Your task to perform on an android device: show emergency info Image 0: 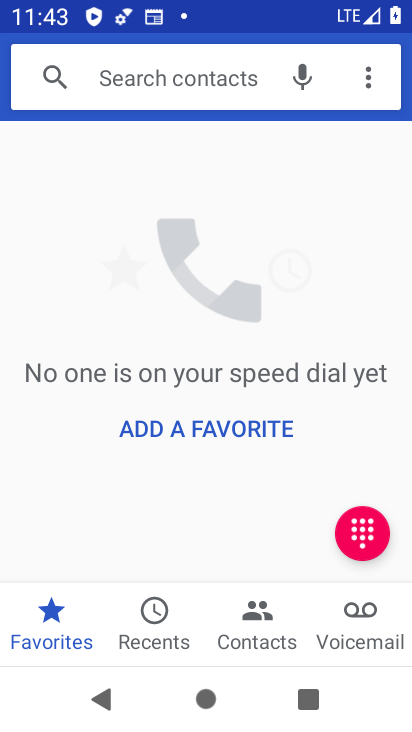
Step 0: press home button
Your task to perform on an android device: show emergency info Image 1: 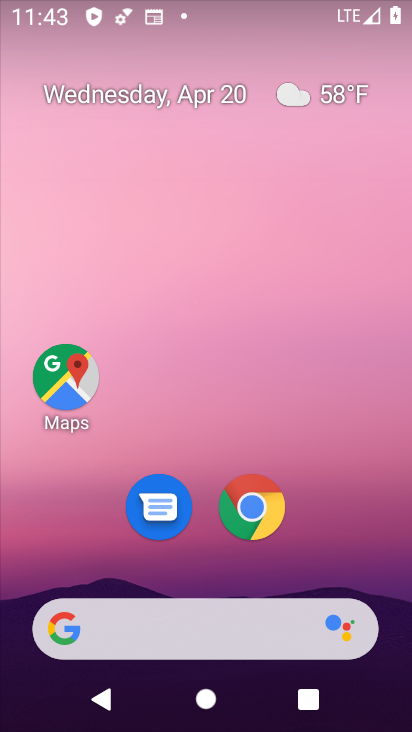
Step 1: drag from (358, 537) to (357, 99)
Your task to perform on an android device: show emergency info Image 2: 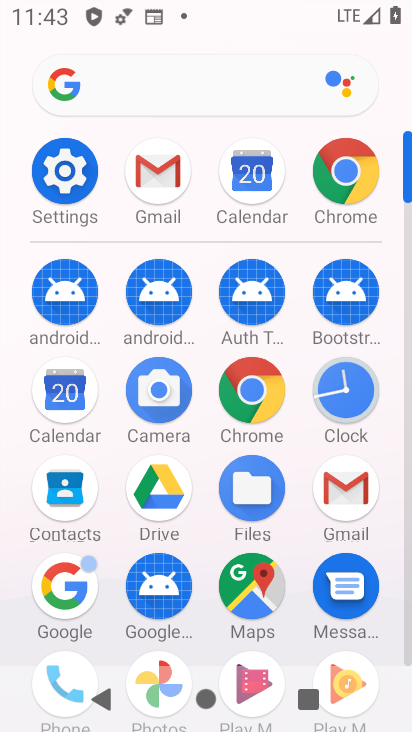
Step 2: click (75, 179)
Your task to perform on an android device: show emergency info Image 3: 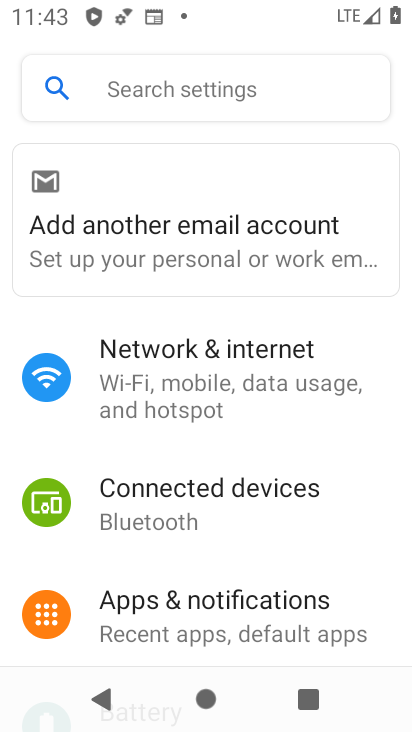
Step 3: drag from (350, 563) to (354, 341)
Your task to perform on an android device: show emergency info Image 4: 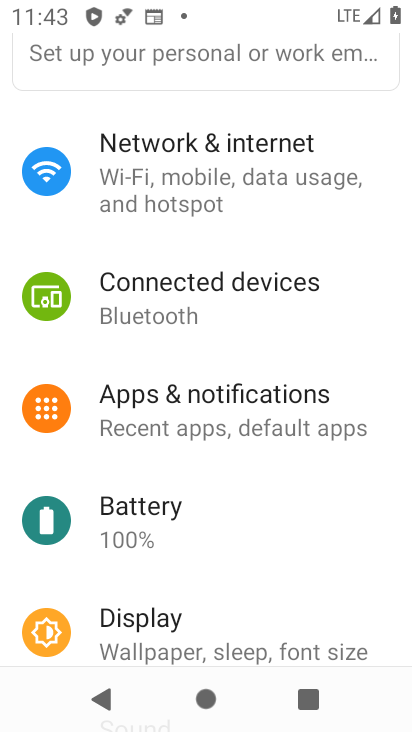
Step 4: drag from (361, 558) to (361, 331)
Your task to perform on an android device: show emergency info Image 5: 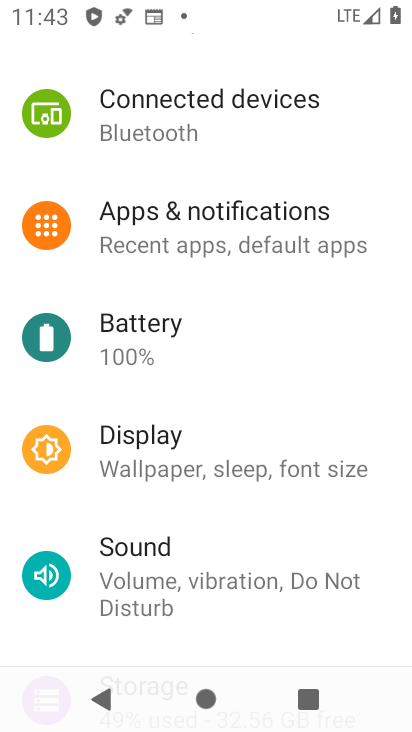
Step 5: drag from (375, 614) to (361, 371)
Your task to perform on an android device: show emergency info Image 6: 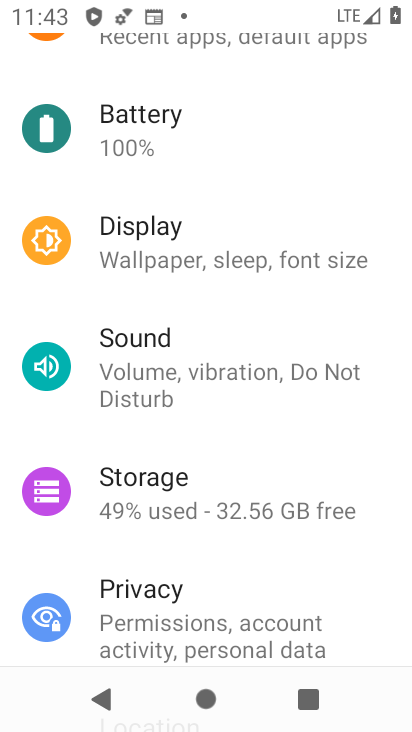
Step 6: drag from (371, 601) to (379, 394)
Your task to perform on an android device: show emergency info Image 7: 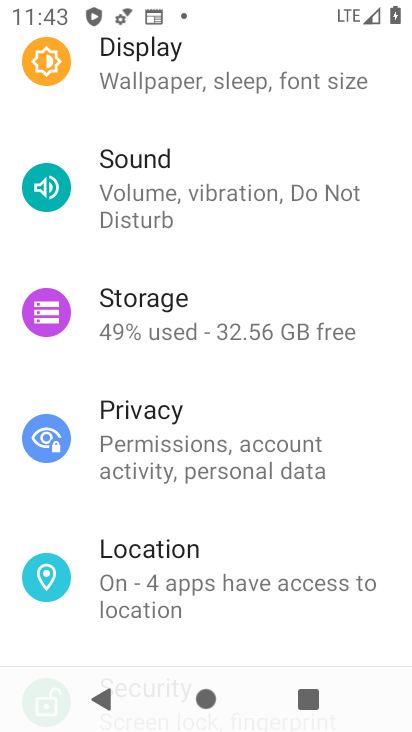
Step 7: drag from (366, 519) to (368, 378)
Your task to perform on an android device: show emergency info Image 8: 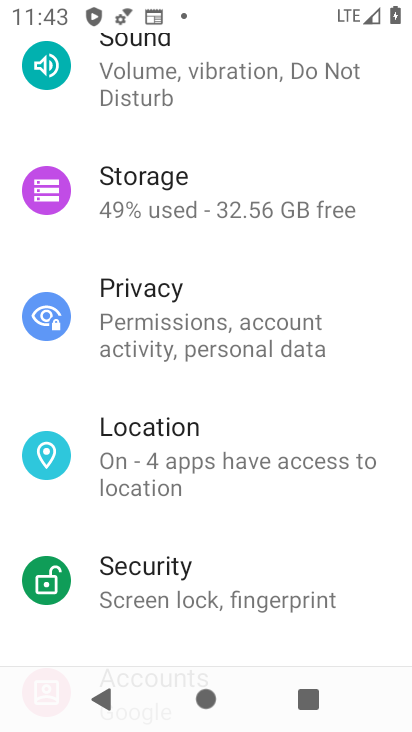
Step 8: drag from (373, 589) to (371, 405)
Your task to perform on an android device: show emergency info Image 9: 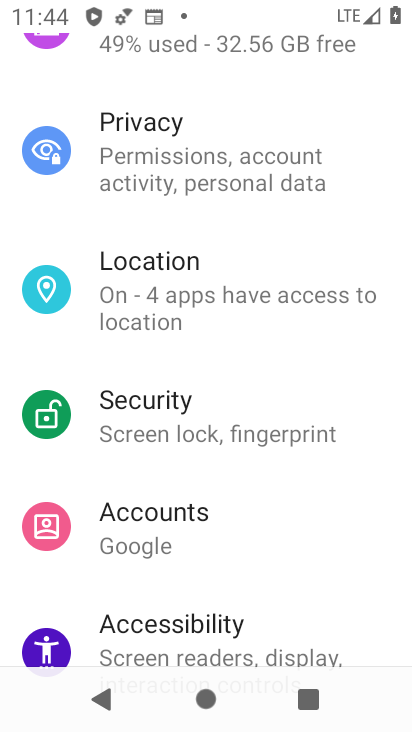
Step 9: drag from (359, 593) to (330, 407)
Your task to perform on an android device: show emergency info Image 10: 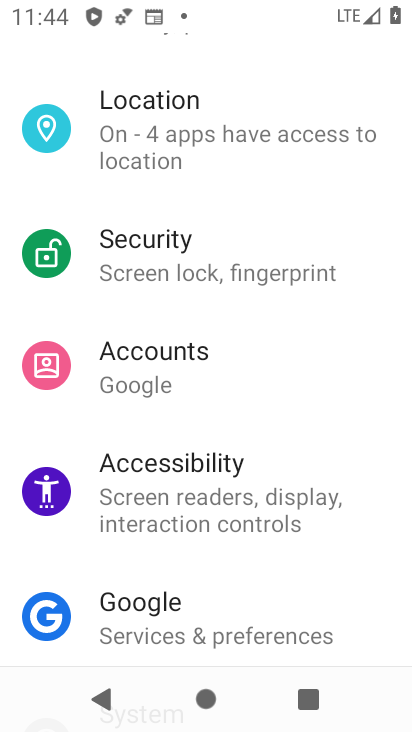
Step 10: drag from (349, 584) to (368, 445)
Your task to perform on an android device: show emergency info Image 11: 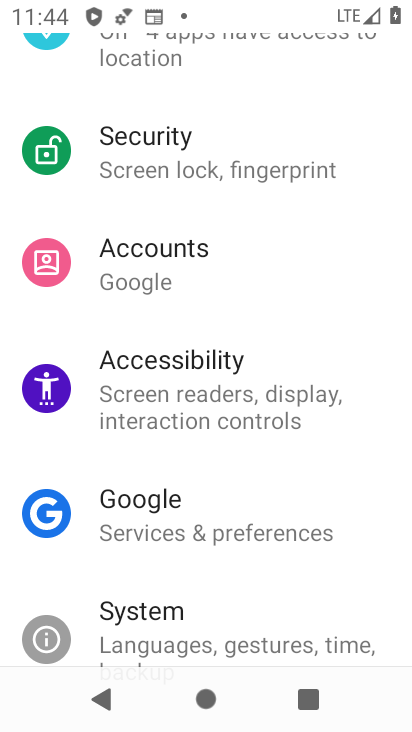
Step 11: drag from (346, 600) to (368, 395)
Your task to perform on an android device: show emergency info Image 12: 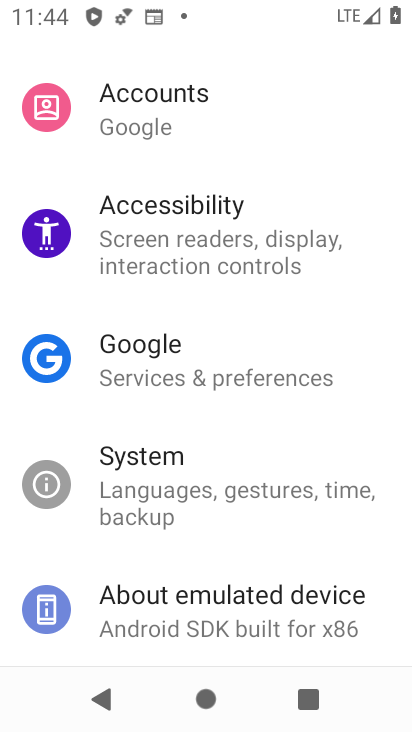
Step 12: click (279, 607)
Your task to perform on an android device: show emergency info Image 13: 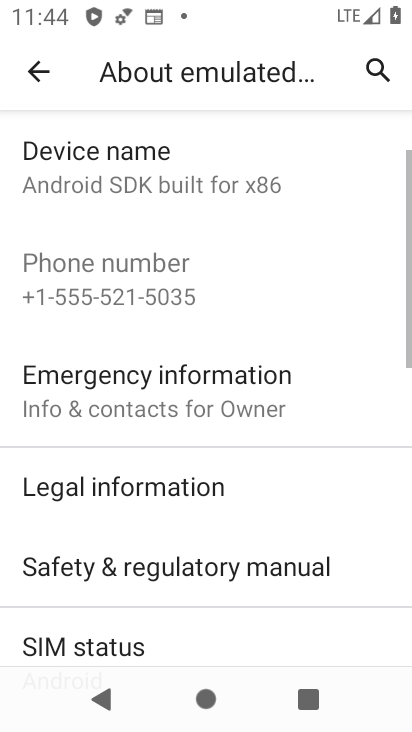
Step 13: click (231, 397)
Your task to perform on an android device: show emergency info Image 14: 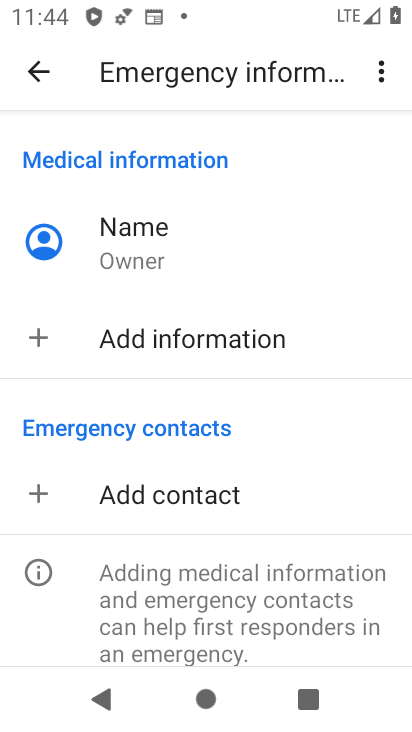
Step 14: task complete